Your task to perform on an android device: Go to accessibility settings Image 0: 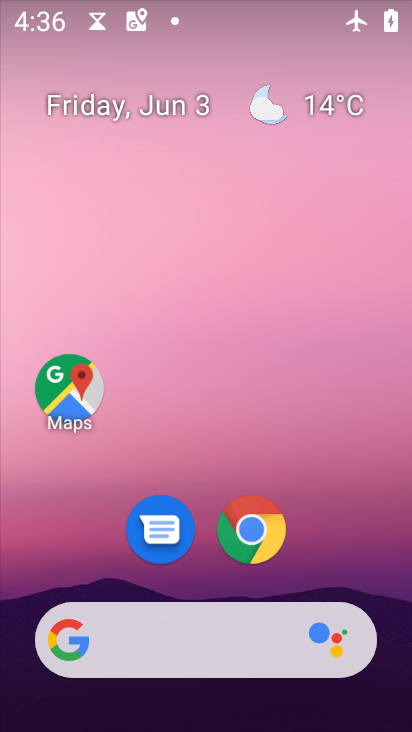
Step 0: drag from (405, 589) to (356, 32)
Your task to perform on an android device: Go to accessibility settings Image 1: 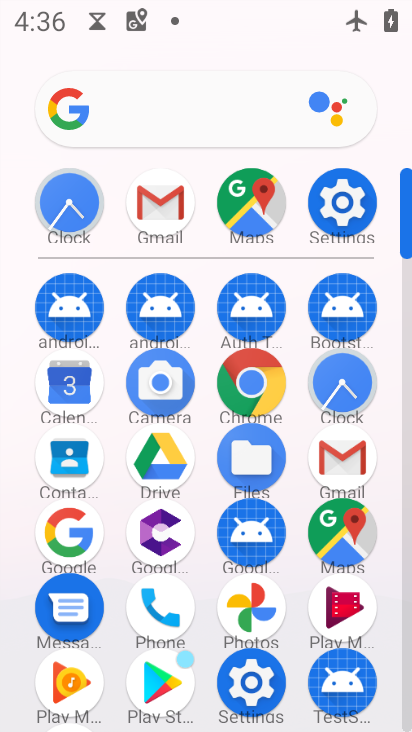
Step 1: click (365, 180)
Your task to perform on an android device: Go to accessibility settings Image 2: 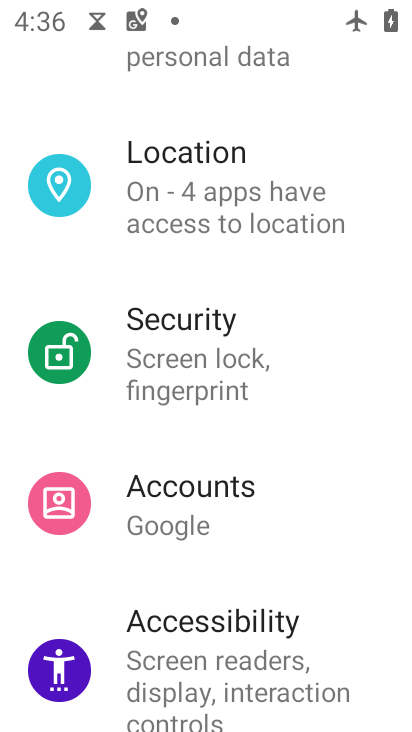
Step 2: click (270, 611)
Your task to perform on an android device: Go to accessibility settings Image 3: 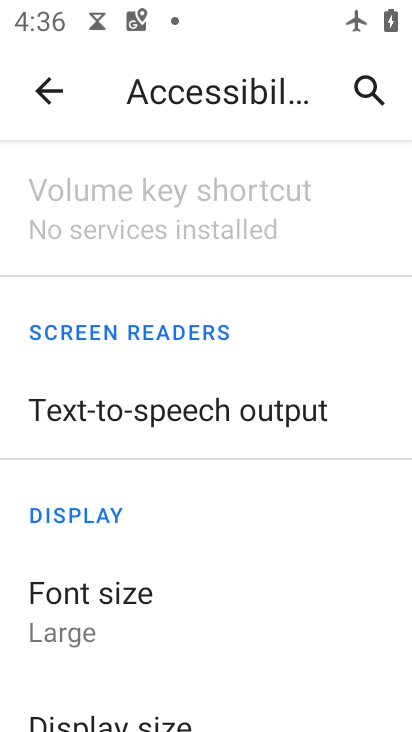
Step 3: task complete